Your task to perform on an android device: turn off picture-in-picture Image 0: 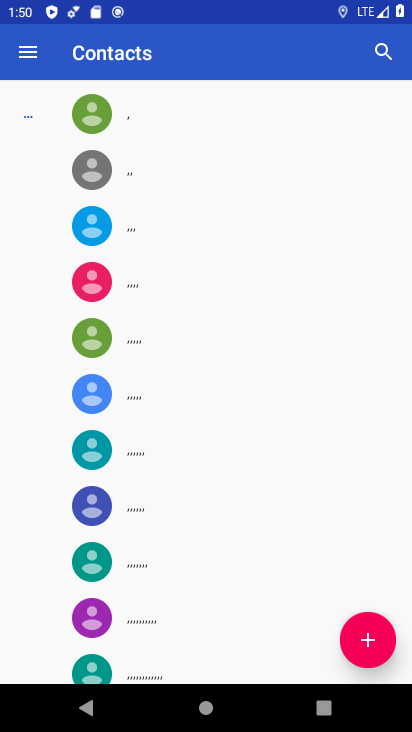
Step 0: press home button
Your task to perform on an android device: turn off picture-in-picture Image 1: 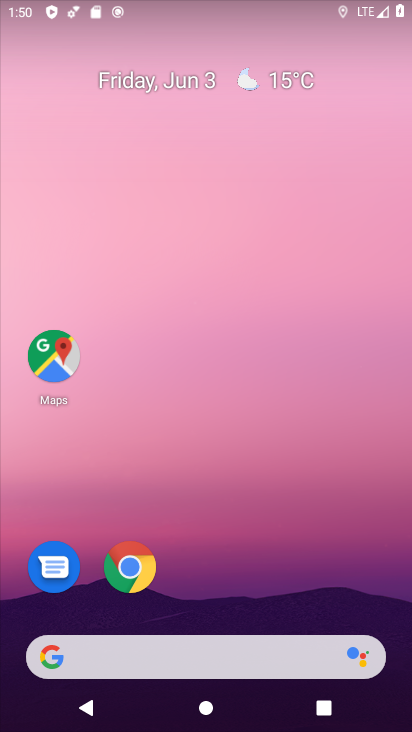
Step 1: click (131, 558)
Your task to perform on an android device: turn off picture-in-picture Image 2: 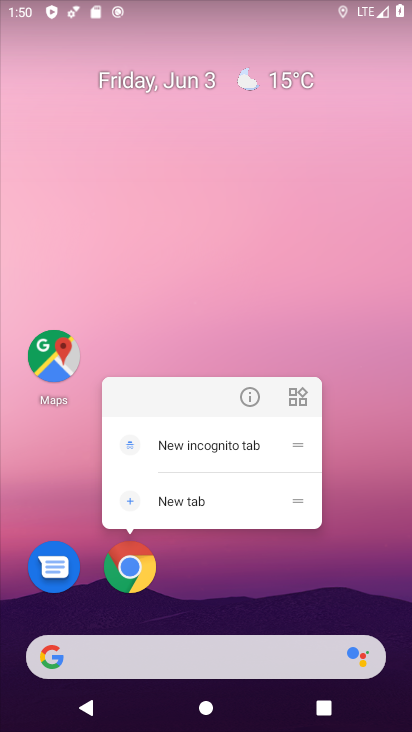
Step 2: click (246, 397)
Your task to perform on an android device: turn off picture-in-picture Image 3: 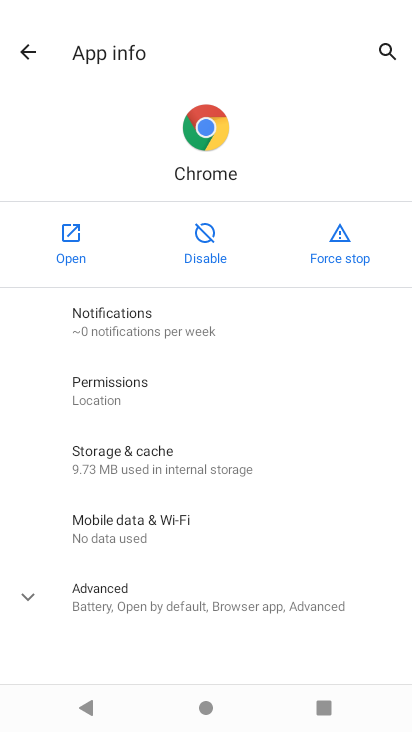
Step 3: click (131, 598)
Your task to perform on an android device: turn off picture-in-picture Image 4: 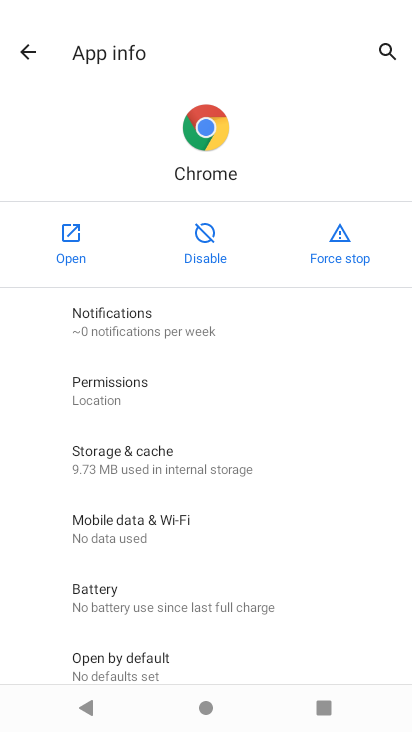
Step 4: drag from (144, 661) to (234, 198)
Your task to perform on an android device: turn off picture-in-picture Image 5: 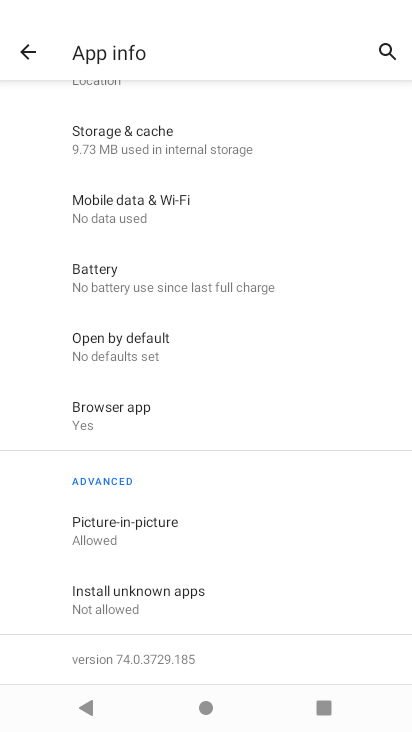
Step 5: click (157, 536)
Your task to perform on an android device: turn off picture-in-picture Image 6: 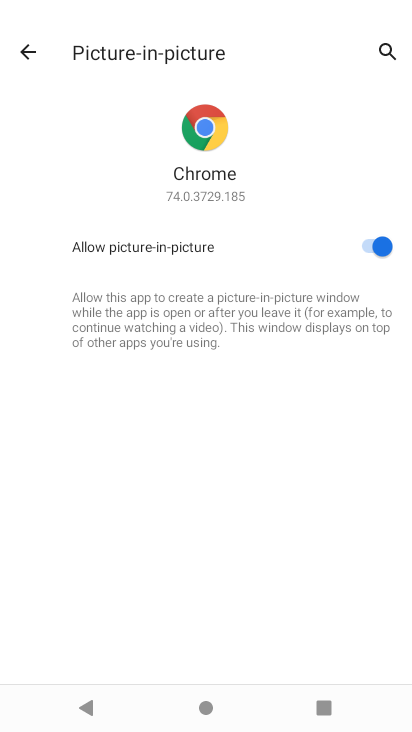
Step 6: click (368, 244)
Your task to perform on an android device: turn off picture-in-picture Image 7: 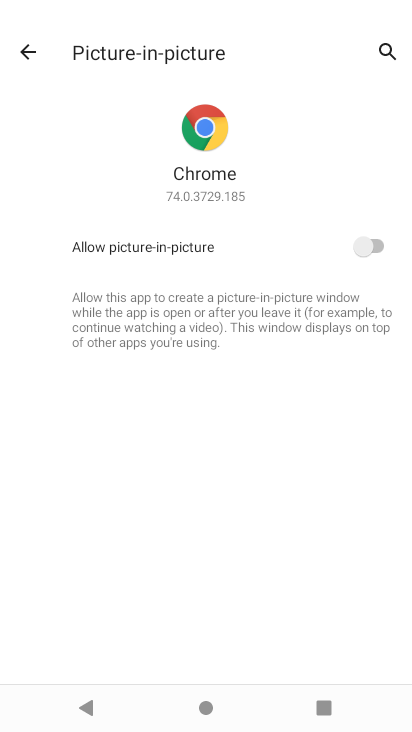
Step 7: task complete